Your task to perform on an android device: open chrome and create a bookmark for the current page Image 0: 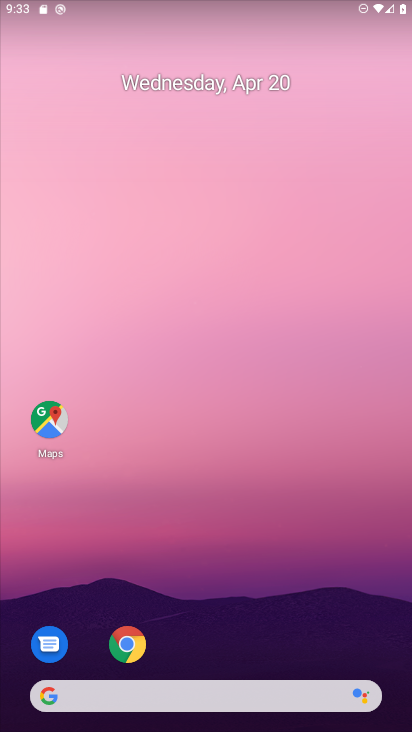
Step 0: drag from (326, 624) to (232, 39)
Your task to perform on an android device: open chrome and create a bookmark for the current page Image 1: 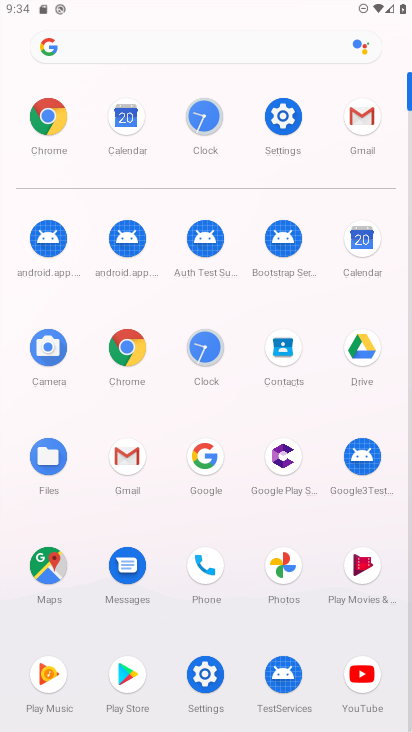
Step 1: click (110, 341)
Your task to perform on an android device: open chrome and create a bookmark for the current page Image 2: 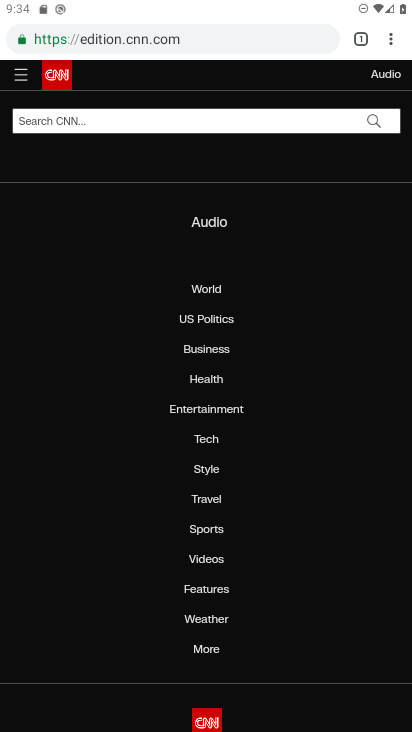
Step 2: click (392, 40)
Your task to perform on an android device: open chrome and create a bookmark for the current page Image 3: 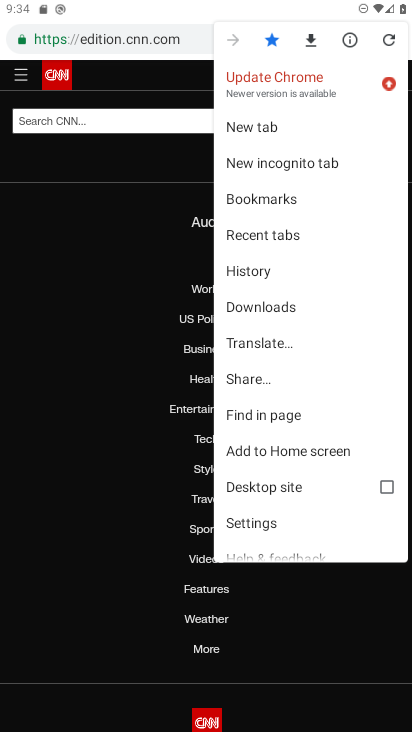
Step 3: press back button
Your task to perform on an android device: open chrome and create a bookmark for the current page Image 4: 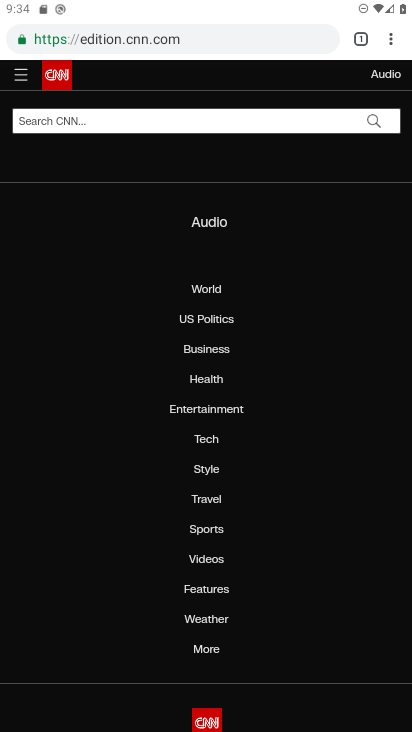
Step 4: press back button
Your task to perform on an android device: open chrome and create a bookmark for the current page Image 5: 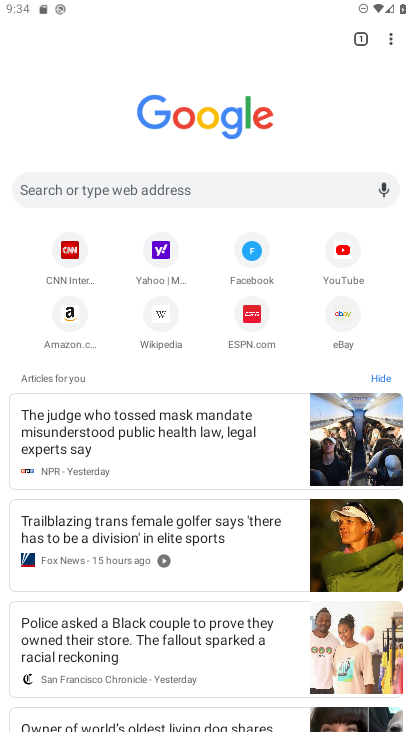
Step 5: click (201, 521)
Your task to perform on an android device: open chrome and create a bookmark for the current page Image 6: 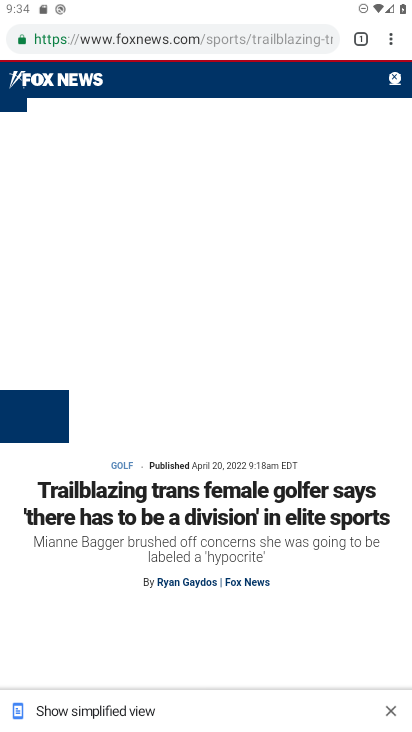
Step 6: click (392, 27)
Your task to perform on an android device: open chrome and create a bookmark for the current page Image 7: 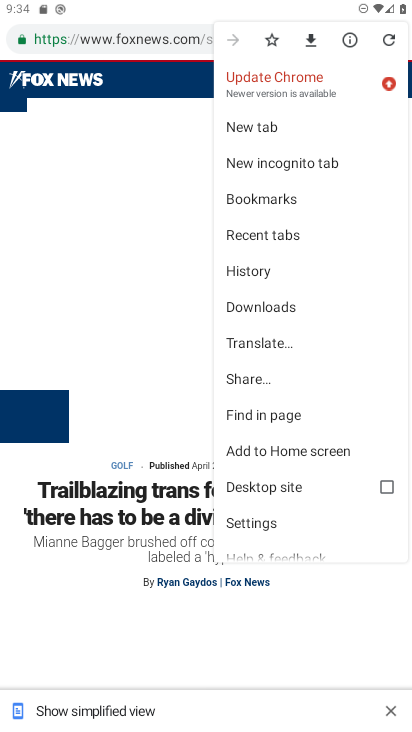
Step 7: click (270, 38)
Your task to perform on an android device: open chrome and create a bookmark for the current page Image 8: 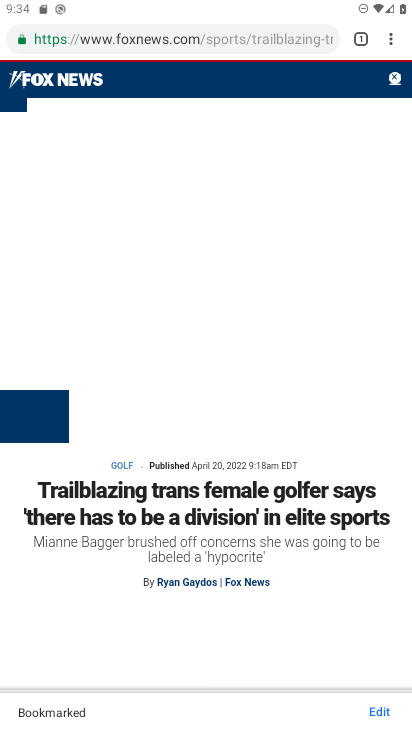
Step 8: task complete